Your task to perform on an android device: uninstall "TextNow: Call + Text Unlimited" Image 0: 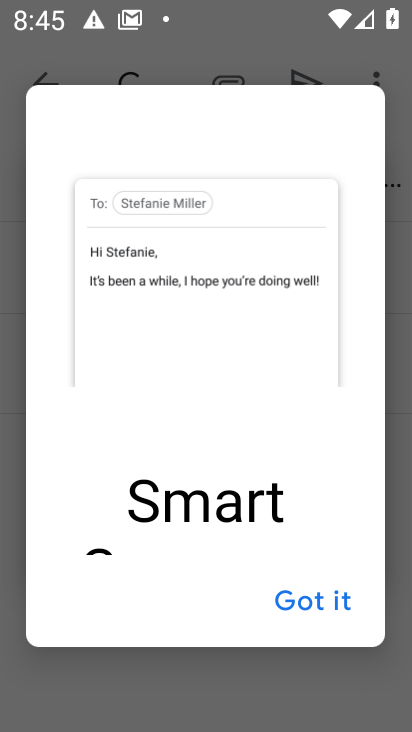
Step 0: press home button
Your task to perform on an android device: uninstall "TextNow: Call + Text Unlimited" Image 1: 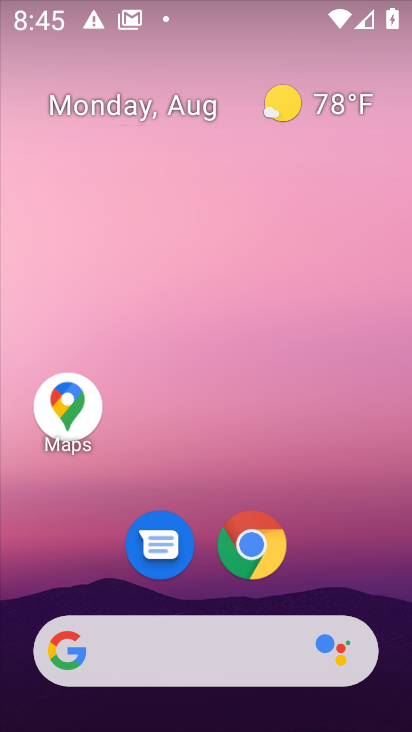
Step 1: drag from (351, 579) to (360, 61)
Your task to perform on an android device: uninstall "TextNow: Call + Text Unlimited" Image 2: 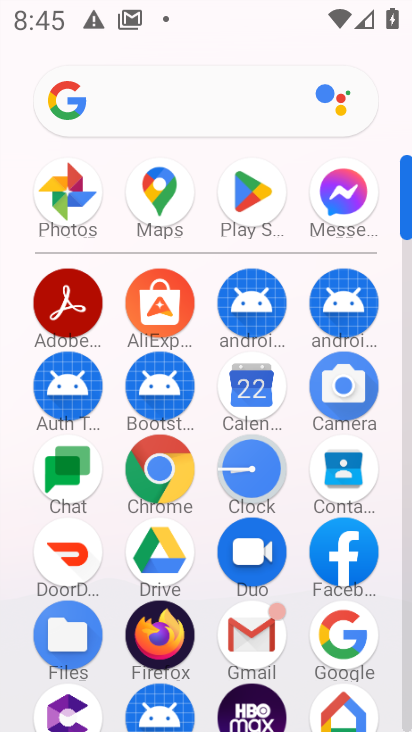
Step 2: click (255, 198)
Your task to perform on an android device: uninstall "TextNow: Call + Text Unlimited" Image 3: 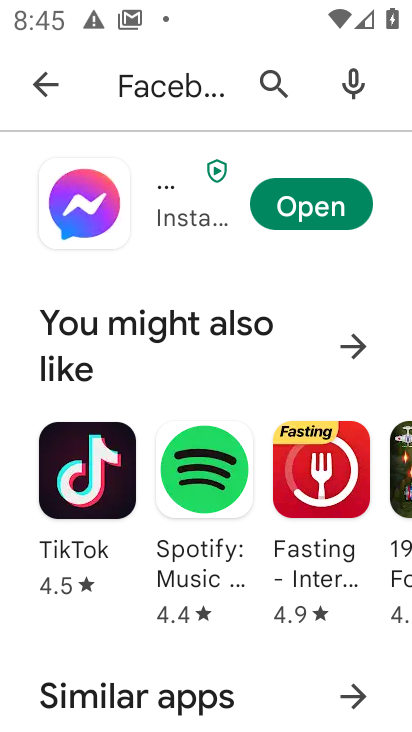
Step 3: press back button
Your task to perform on an android device: uninstall "TextNow: Call + Text Unlimited" Image 4: 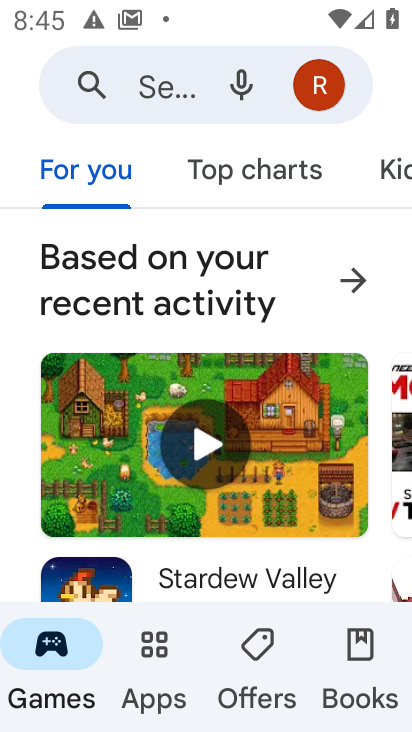
Step 4: click (195, 88)
Your task to perform on an android device: uninstall "TextNow: Call + Text Unlimited" Image 5: 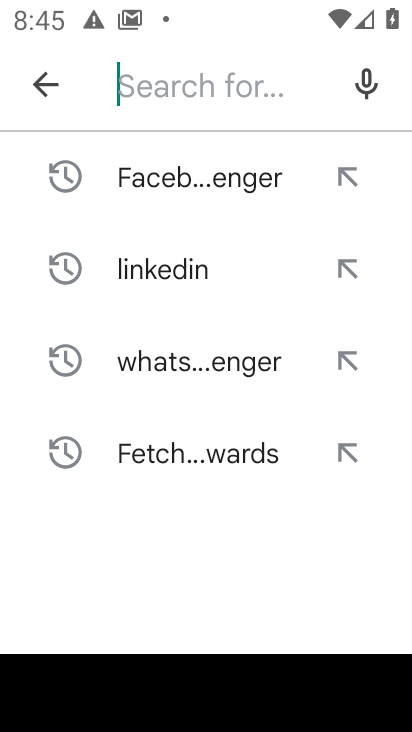
Step 5: type "TextNow: Call + Text Unlimited"
Your task to perform on an android device: uninstall "TextNow: Call + Text Unlimited" Image 6: 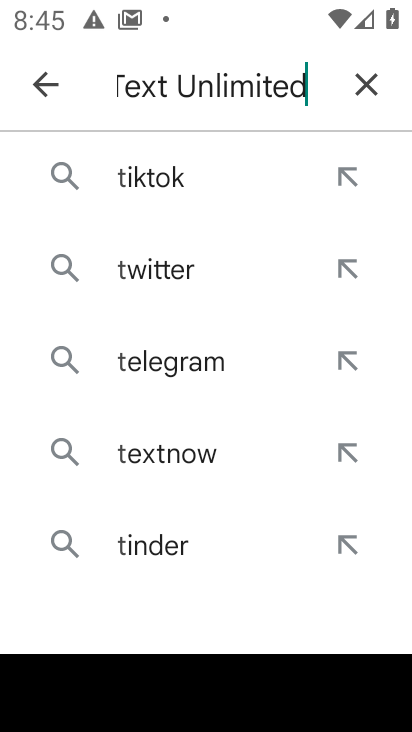
Step 6: press enter
Your task to perform on an android device: uninstall "TextNow: Call + Text Unlimited" Image 7: 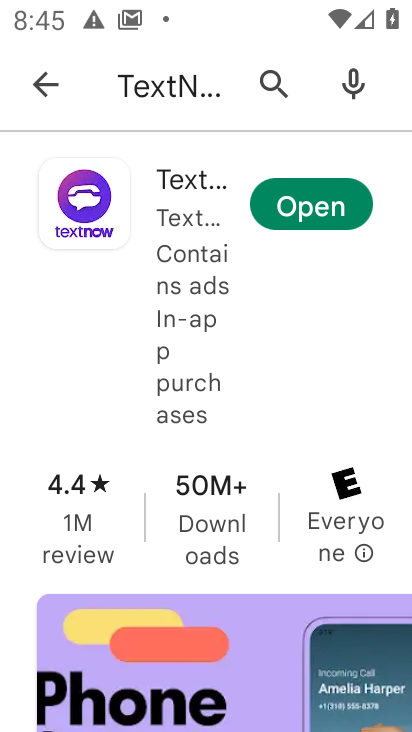
Step 7: task complete